Your task to perform on an android device: change the clock display to digital Image 0: 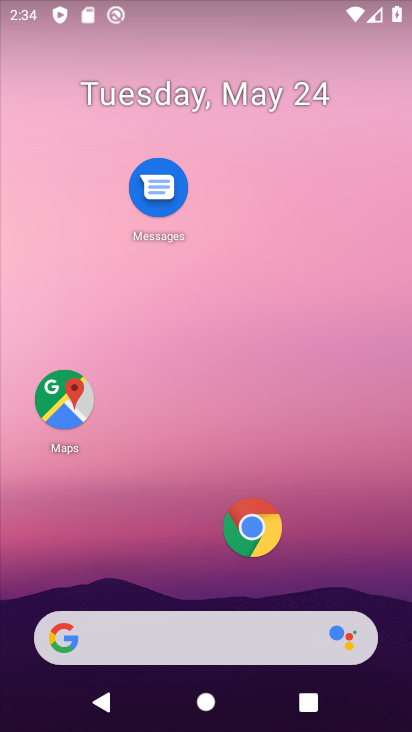
Step 0: drag from (139, 579) to (162, 293)
Your task to perform on an android device: change the clock display to digital Image 1: 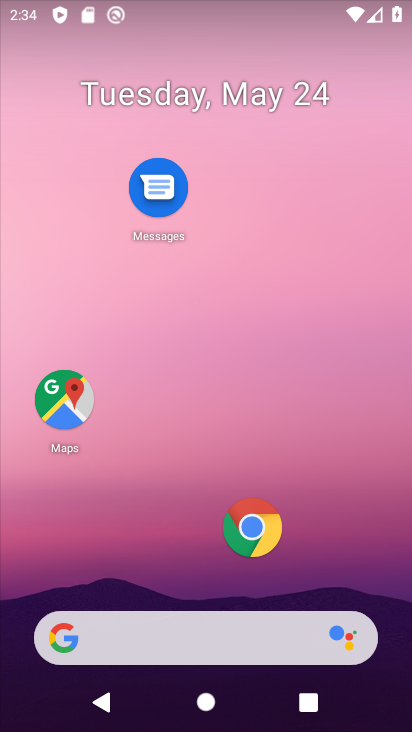
Step 1: drag from (167, 527) to (221, 228)
Your task to perform on an android device: change the clock display to digital Image 2: 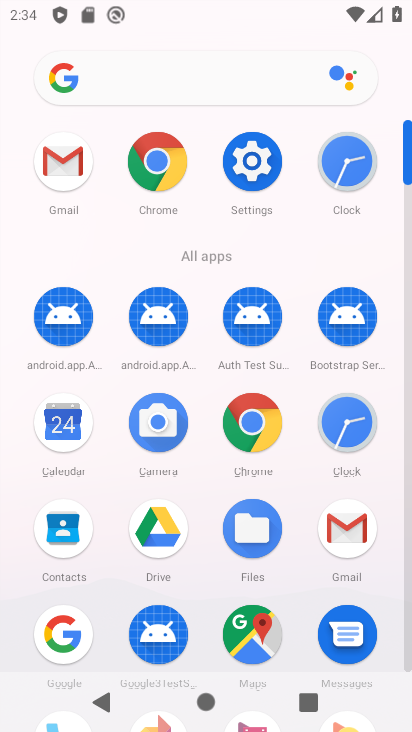
Step 2: click (359, 154)
Your task to perform on an android device: change the clock display to digital Image 3: 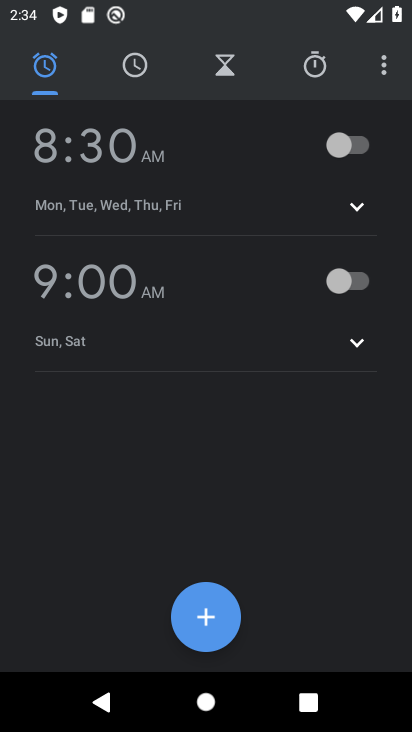
Step 3: click (391, 65)
Your task to perform on an android device: change the clock display to digital Image 4: 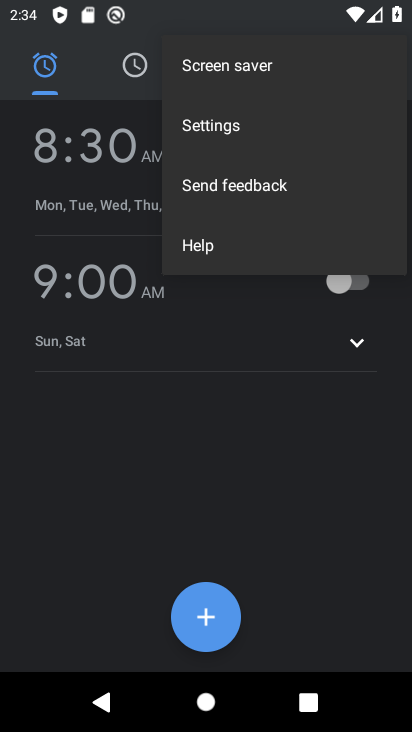
Step 4: click (226, 127)
Your task to perform on an android device: change the clock display to digital Image 5: 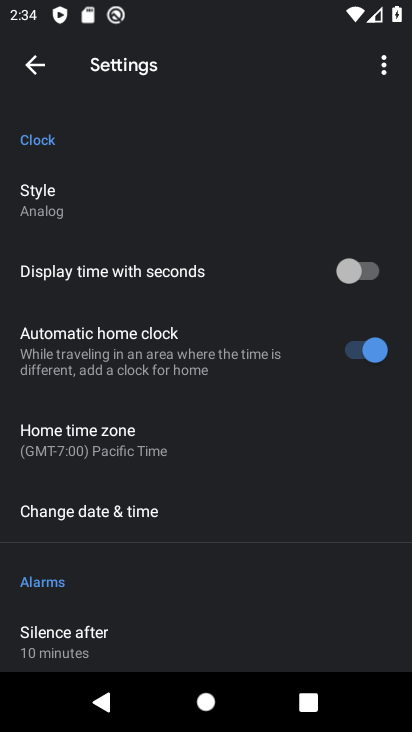
Step 5: click (27, 191)
Your task to perform on an android device: change the clock display to digital Image 6: 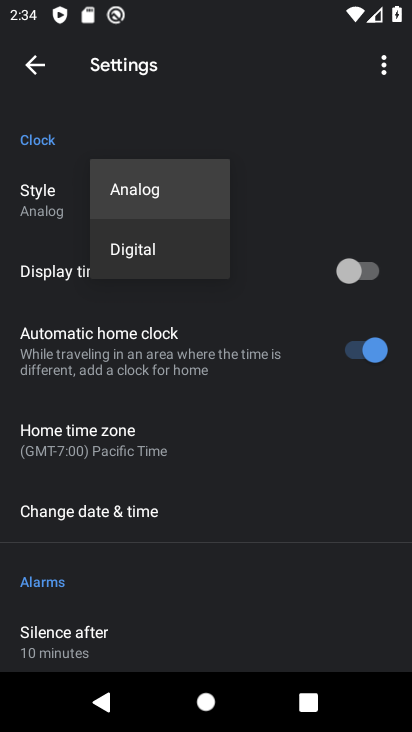
Step 6: click (147, 261)
Your task to perform on an android device: change the clock display to digital Image 7: 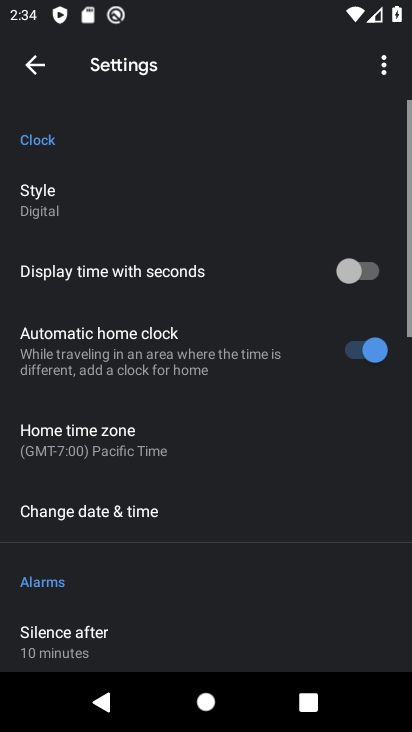
Step 7: task complete